Your task to perform on an android device: uninstall "PUBG MOBILE" Image 0: 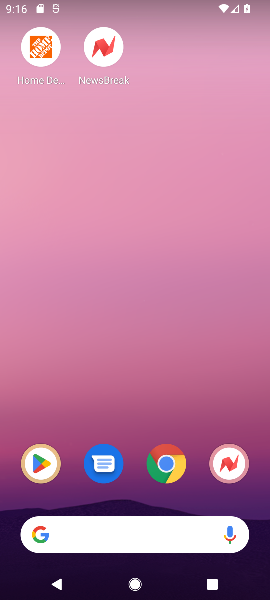
Step 0: click (44, 465)
Your task to perform on an android device: uninstall "PUBG MOBILE" Image 1: 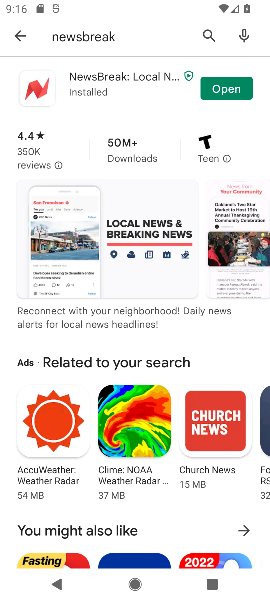
Step 1: click (201, 31)
Your task to perform on an android device: uninstall "PUBG MOBILE" Image 2: 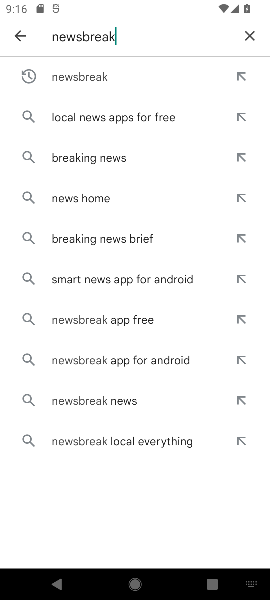
Step 2: click (254, 34)
Your task to perform on an android device: uninstall "PUBG MOBILE" Image 3: 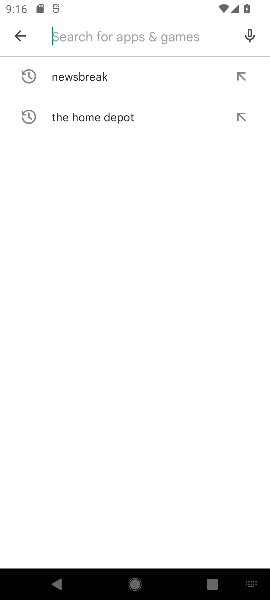
Step 3: click (123, 38)
Your task to perform on an android device: uninstall "PUBG MOBILE" Image 4: 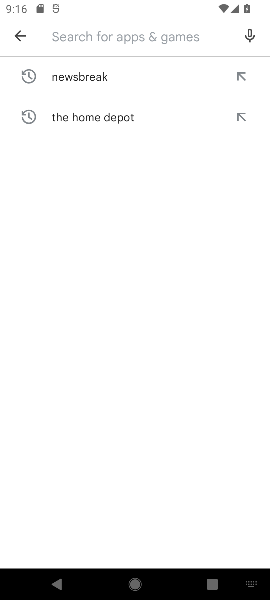
Step 4: type "pubg mobile"
Your task to perform on an android device: uninstall "PUBG MOBILE" Image 5: 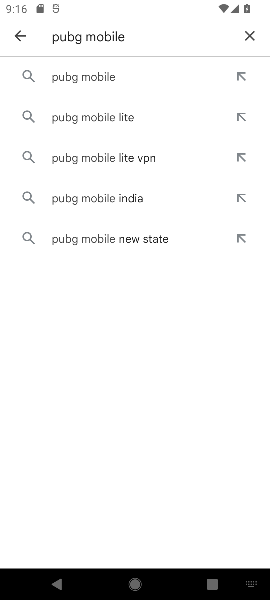
Step 5: click (93, 67)
Your task to perform on an android device: uninstall "PUBG MOBILE" Image 6: 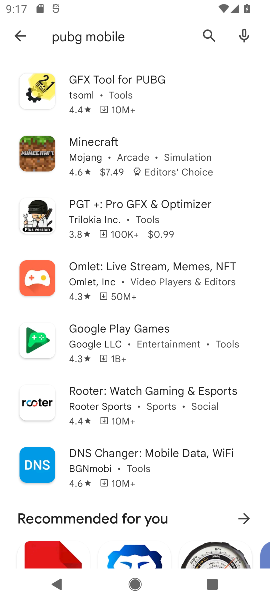
Step 6: task complete